Your task to perform on an android device: turn on airplane mode Image 0: 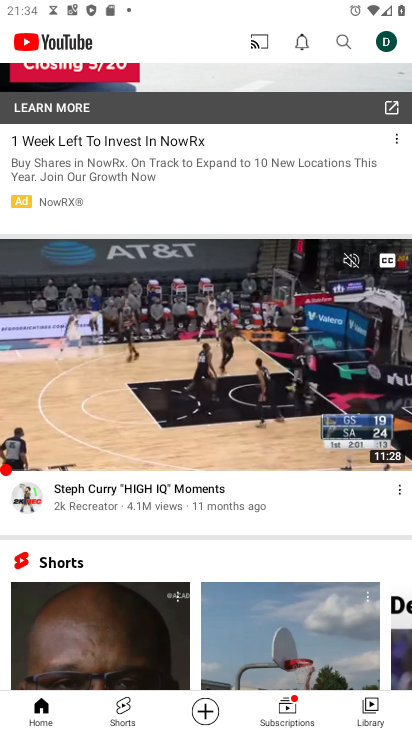
Step 0: press home button
Your task to perform on an android device: turn on airplane mode Image 1: 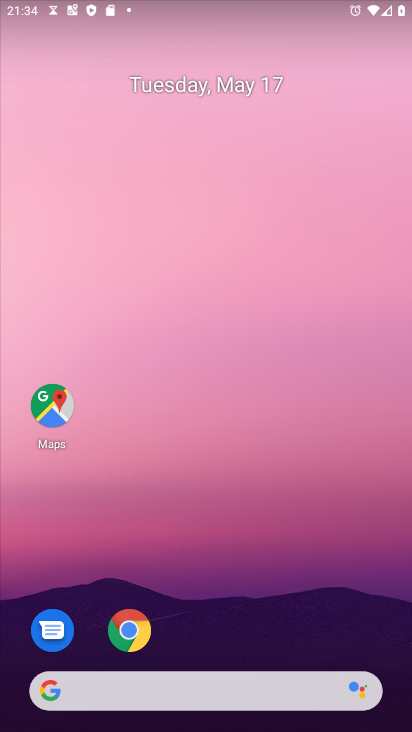
Step 1: drag from (201, 570) to (223, 57)
Your task to perform on an android device: turn on airplane mode Image 2: 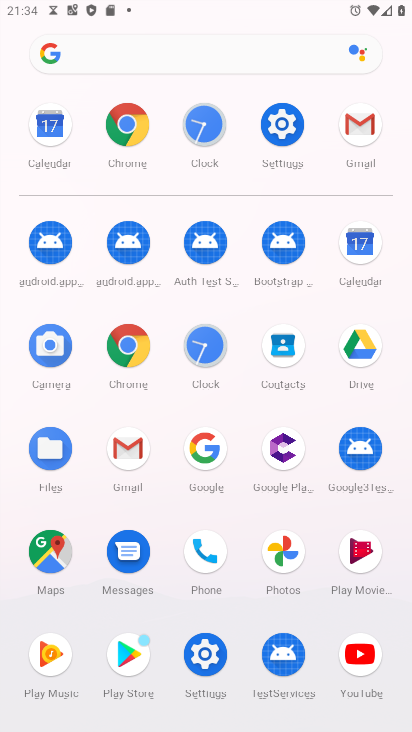
Step 2: click (282, 140)
Your task to perform on an android device: turn on airplane mode Image 3: 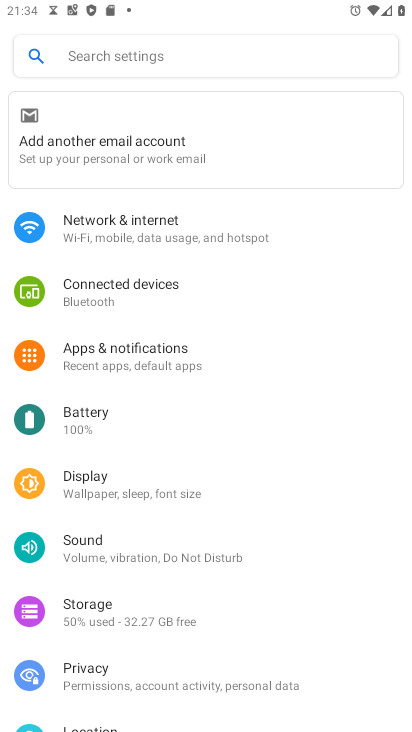
Step 3: click (134, 238)
Your task to perform on an android device: turn on airplane mode Image 4: 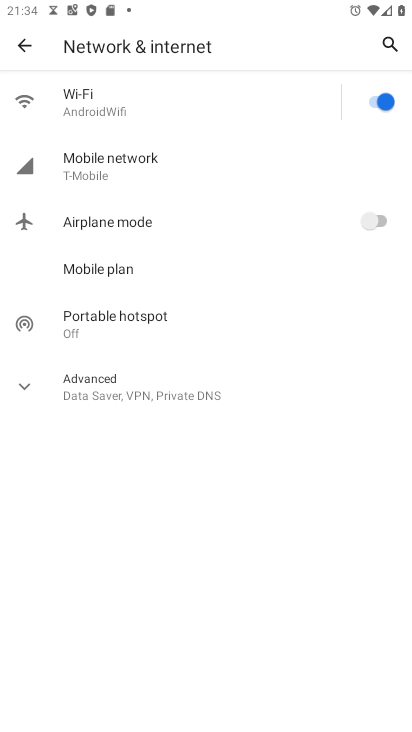
Step 4: click (369, 224)
Your task to perform on an android device: turn on airplane mode Image 5: 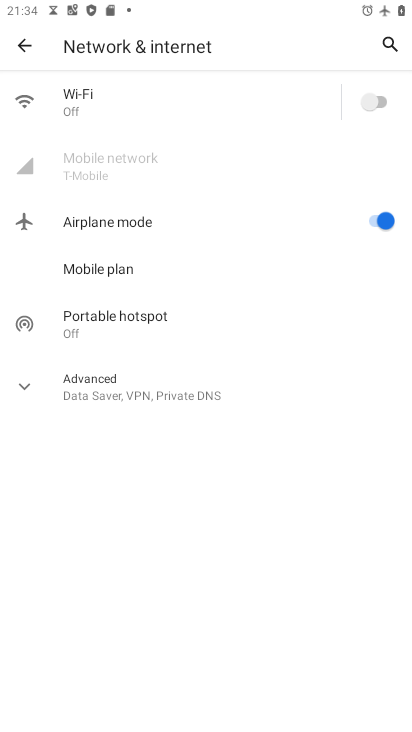
Step 5: task complete